Your task to perform on an android device: open a bookmark in the chrome app Image 0: 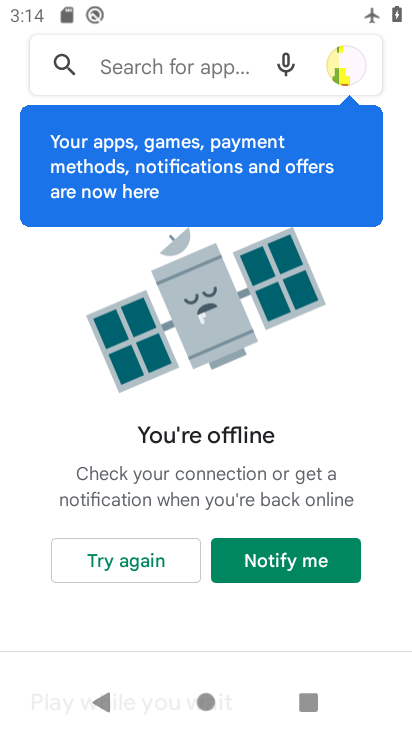
Step 0: press home button
Your task to perform on an android device: open a bookmark in the chrome app Image 1: 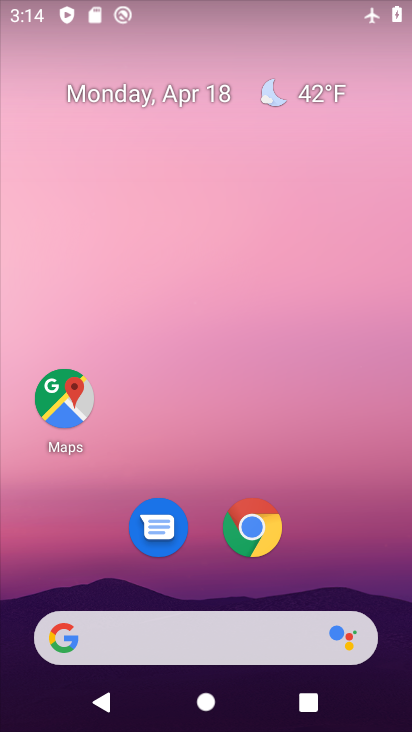
Step 1: click (251, 531)
Your task to perform on an android device: open a bookmark in the chrome app Image 2: 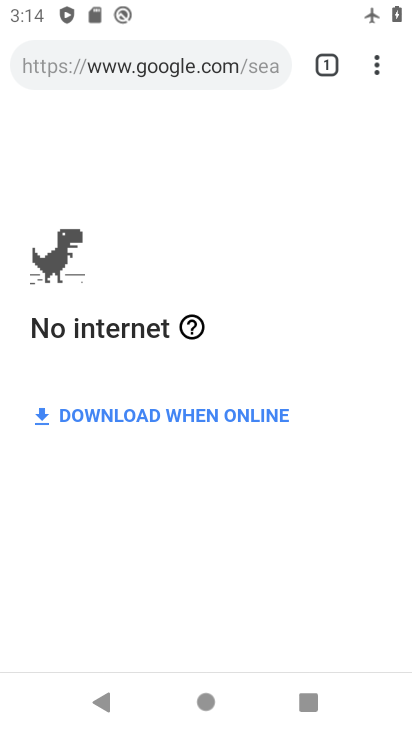
Step 2: click (370, 64)
Your task to perform on an android device: open a bookmark in the chrome app Image 3: 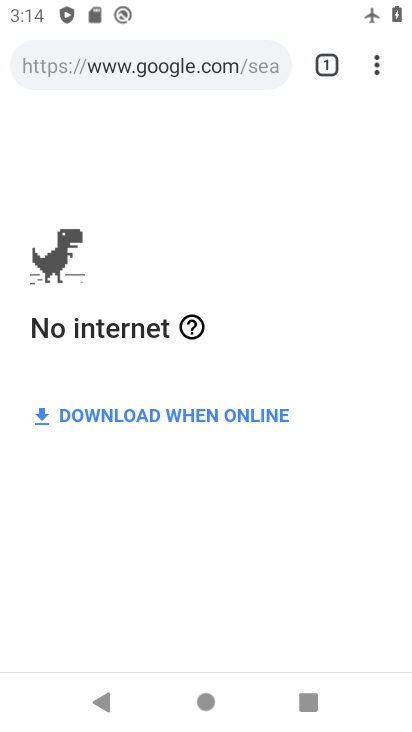
Step 3: click (374, 66)
Your task to perform on an android device: open a bookmark in the chrome app Image 4: 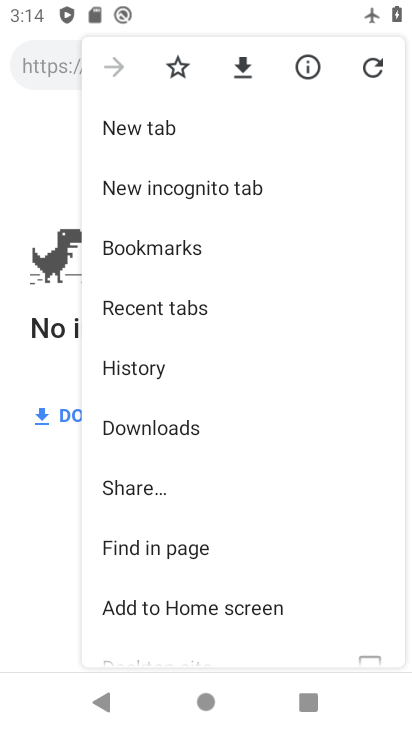
Step 4: click (158, 243)
Your task to perform on an android device: open a bookmark in the chrome app Image 5: 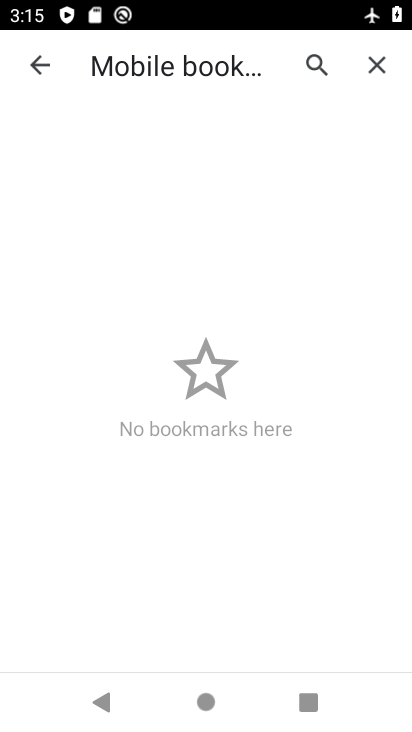
Step 5: task complete